Your task to perform on an android device: Show me popular games on the Play Store Image 0: 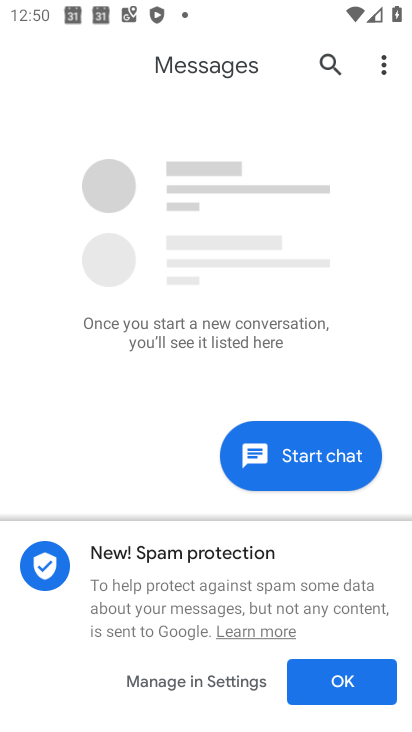
Step 0: press home button
Your task to perform on an android device: Show me popular games on the Play Store Image 1: 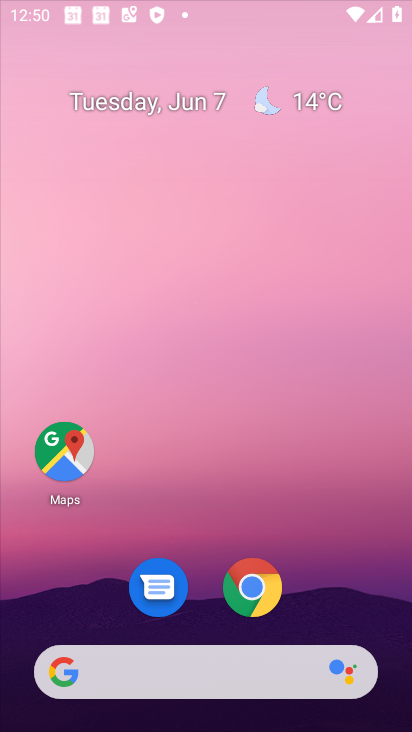
Step 1: drag from (192, 660) to (102, 69)
Your task to perform on an android device: Show me popular games on the Play Store Image 2: 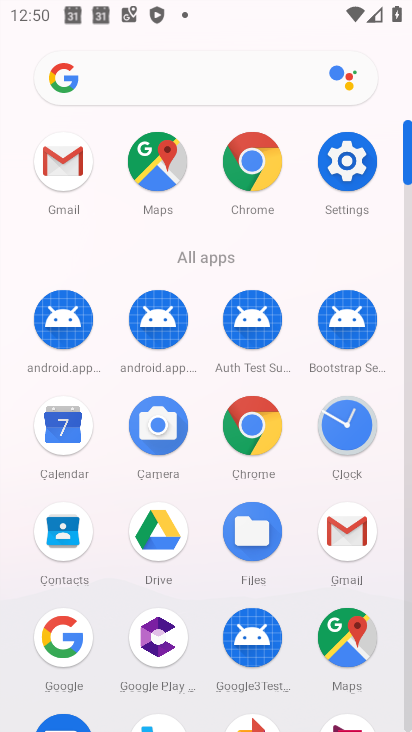
Step 2: drag from (250, 559) to (246, 125)
Your task to perform on an android device: Show me popular games on the Play Store Image 3: 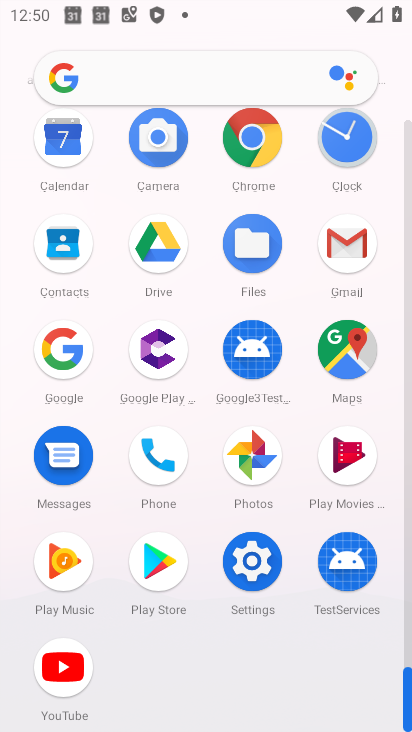
Step 3: click (165, 553)
Your task to perform on an android device: Show me popular games on the Play Store Image 4: 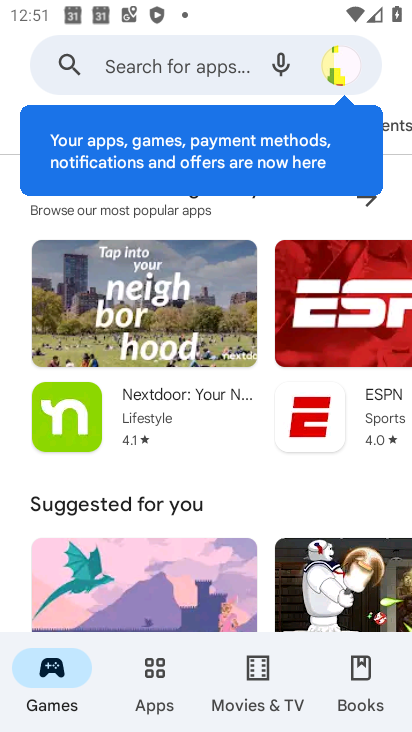
Step 4: task complete